Your task to perform on an android device: Go to wifi settings Image 0: 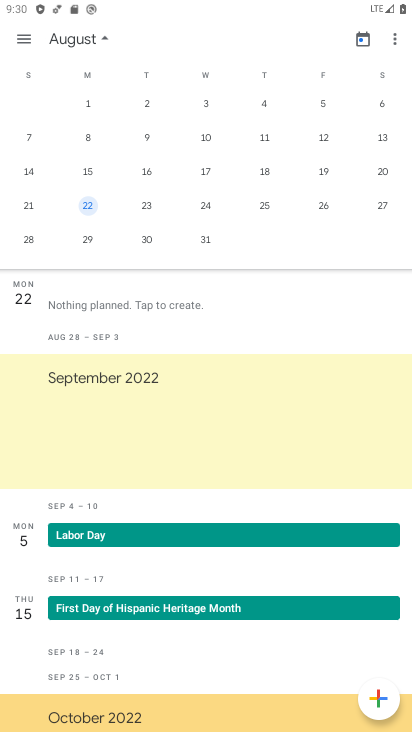
Step 0: press home button
Your task to perform on an android device: Go to wifi settings Image 1: 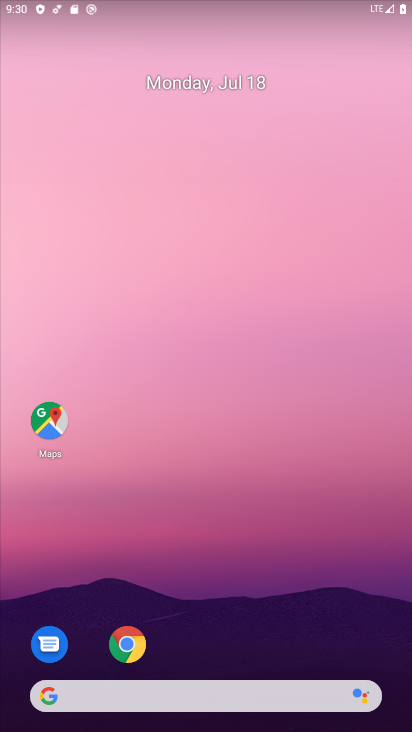
Step 1: drag from (332, 608) to (365, 150)
Your task to perform on an android device: Go to wifi settings Image 2: 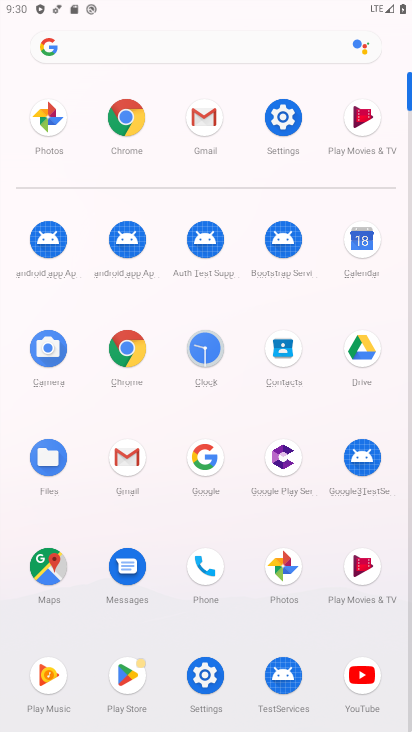
Step 2: click (292, 125)
Your task to perform on an android device: Go to wifi settings Image 3: 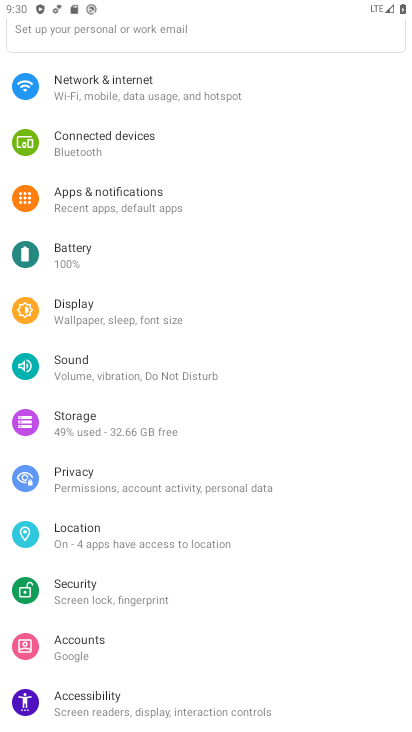
Step 3: drag from (321, 547) to (337, 461)
Your task to perform on an android device: Go to wifi settings Image 4: 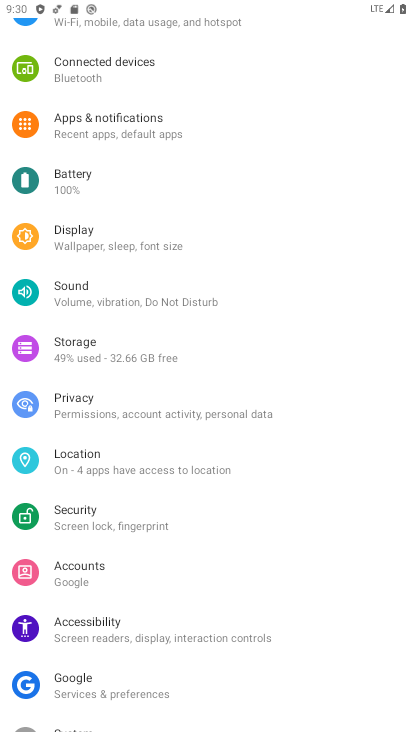
Step 4: drag from (331, 572) to (339, 469)
Your task to perform on an android device: Go to wifi settings Image 5: 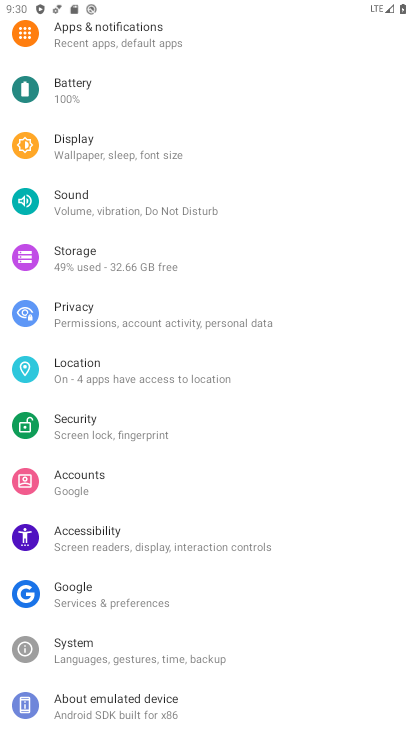
Step 5: drag from (338, 567) to (348, 490)
Your task to perform on an android device: Go to wifi settings Image 6: 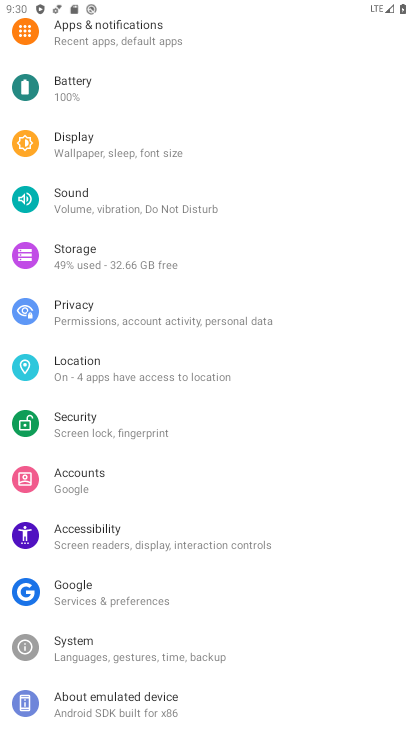
Step 6: drag from (335, 364) to (335, 458)
Your task to perform on an android device: Go to wifi settings Image 7: 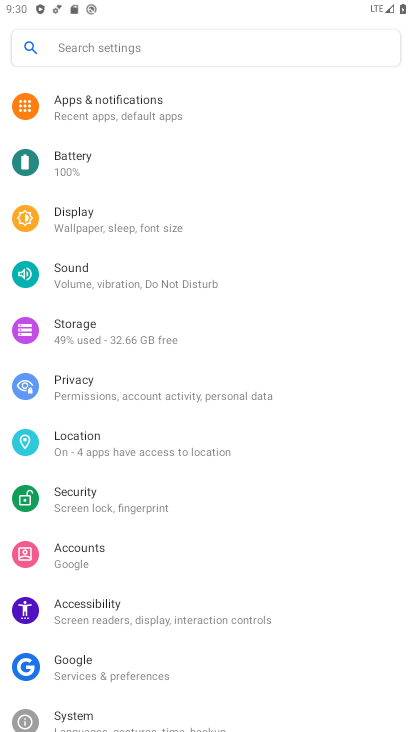
Step 7: drag from (333, 357) to (333, 436)
Your task to perform on an android device: Go to wifi settings Image 8: 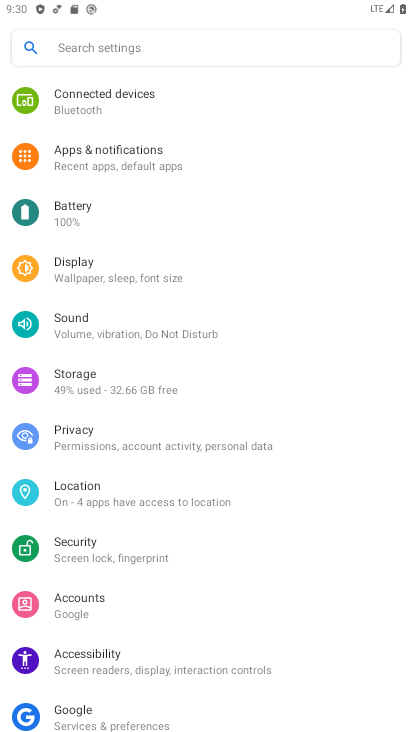
Step 8: drag from (329, 339) to (335, 435)
Your task to perform on an android device: Go to wifi settings Image 9: 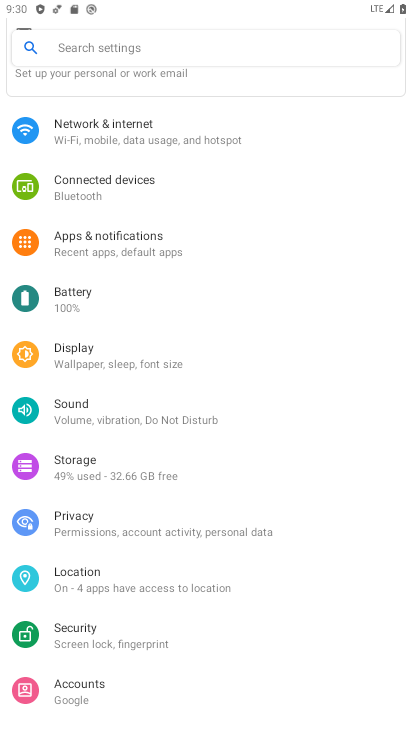
Step 9: drag from (334, 321) to (334, 431)
Your task to perform on an android device: Go to wifi settings Image 10: 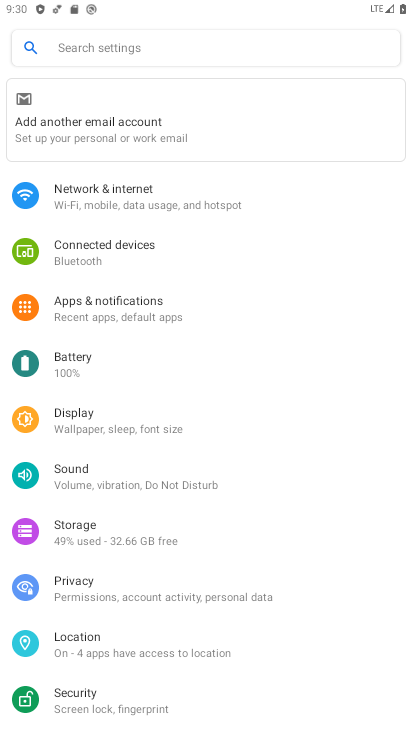
Step 10: click (254, 200)
Your task to perform on an android device: Go to wifi settings Image 11: 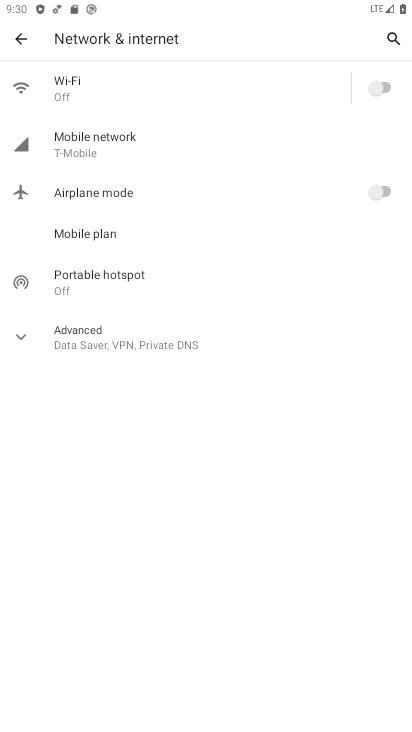
Step 11: click (136, 91)
Your task to perform on an android device: Go to wifi settings Image 12: 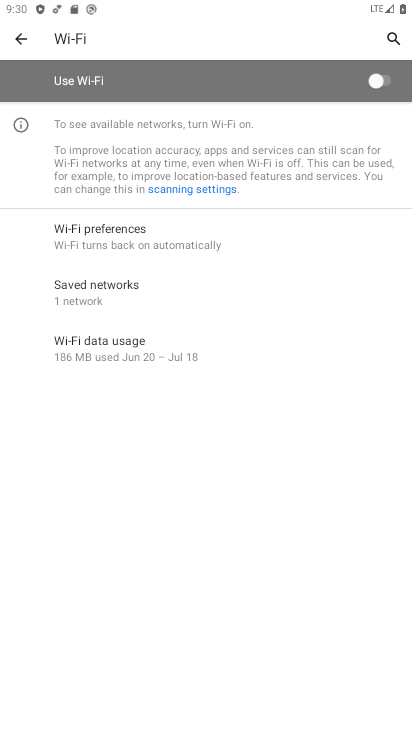
Step 12: task complete